Your task to perform on an android device: Go to notification settings Image 0: 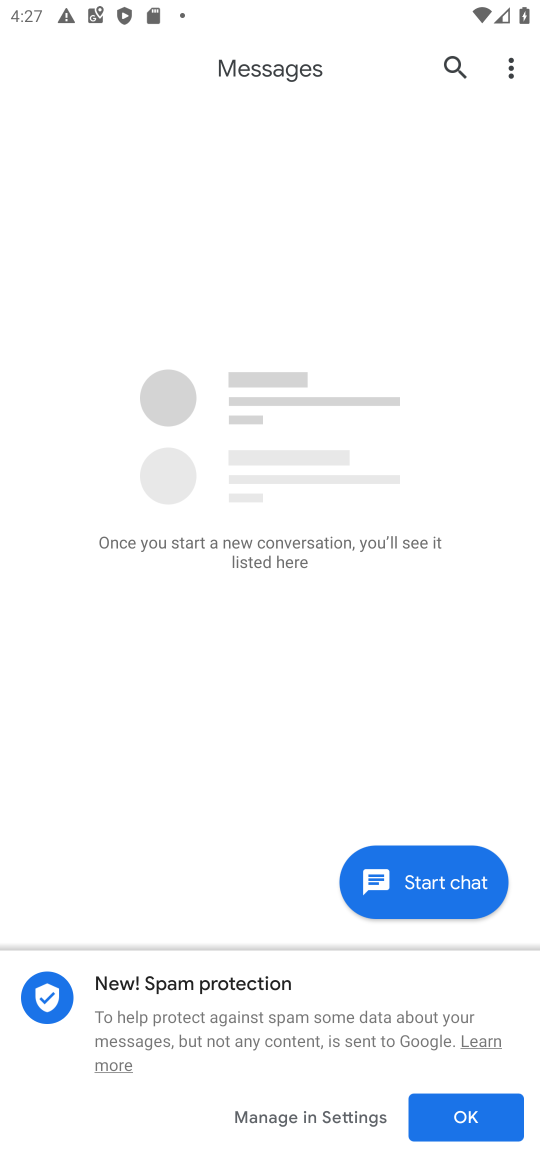
Step 0: press home button
Your task to perform on an android device: Go to notification settings Image 1: 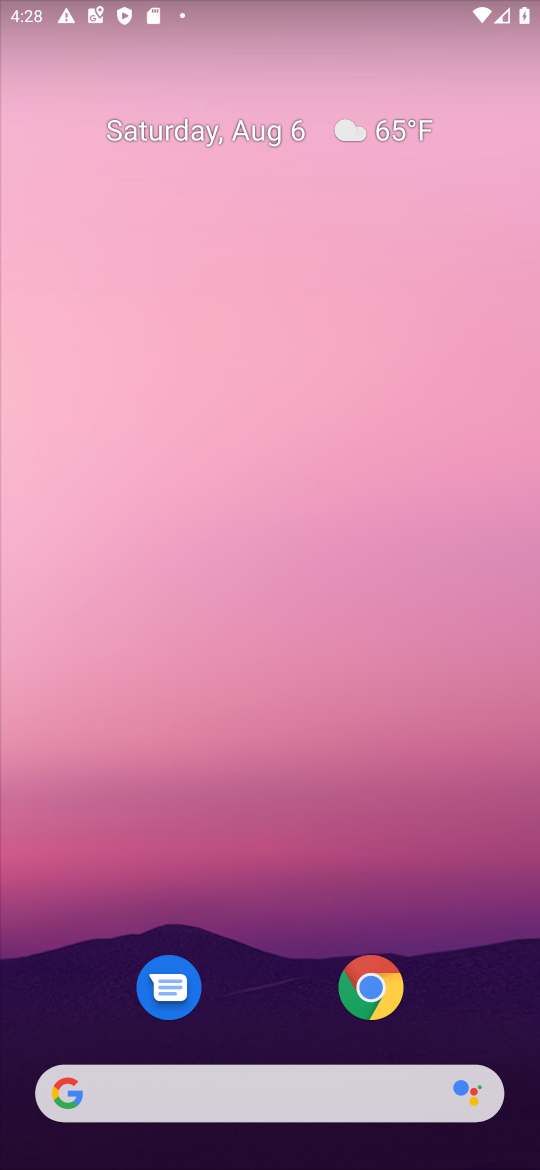
Step 1: drag from (263, 1006) to (281, 2)
Your task to perform on an android device: Go to notification settings Image 2: 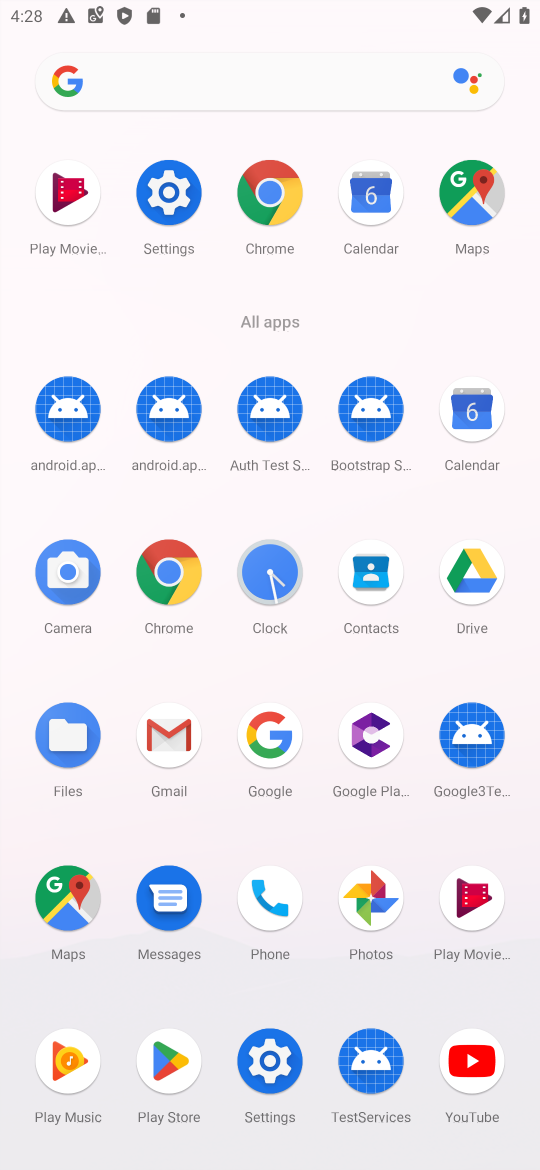
Step 2: click (260, 1058)
Your task to perform on an android device: Go to notification settings Image 3: 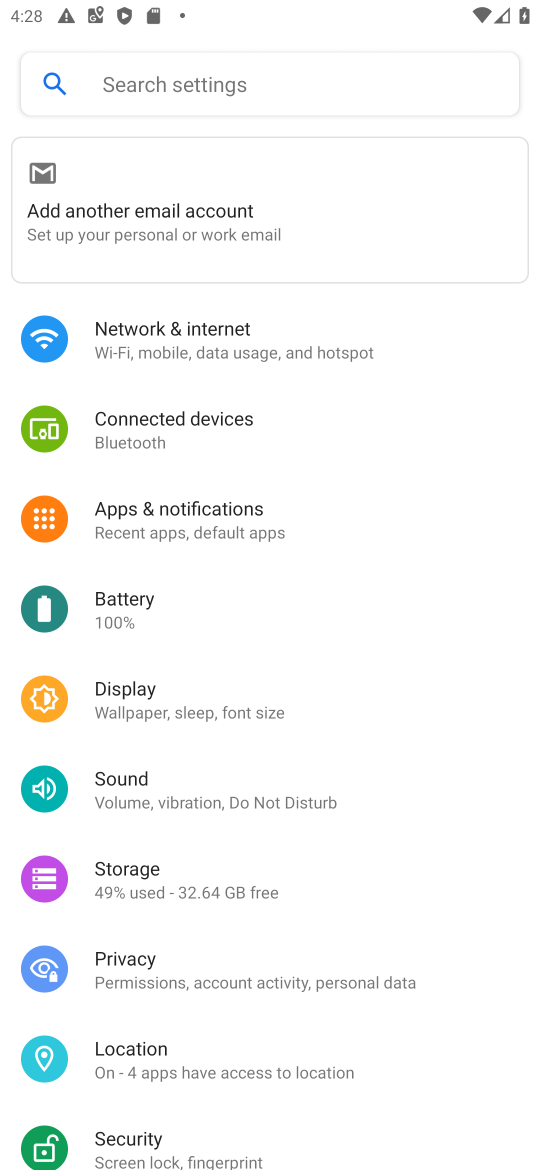
Step 3: click (255, 534)
Your task to perform on an android device: Go to notification settings Image 4: 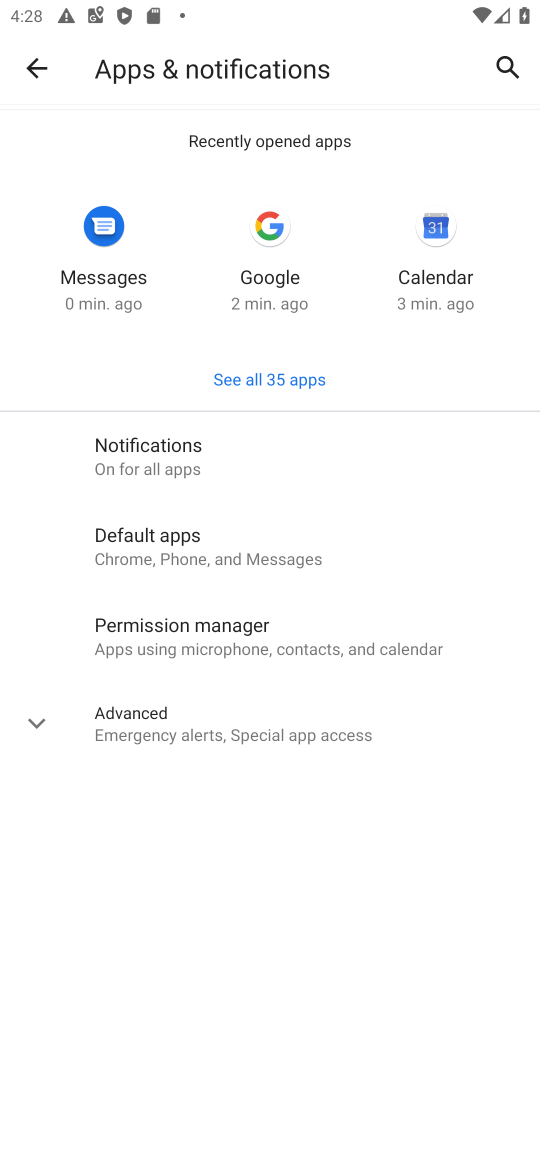
Step 4: click (174, 458)
Your task to perform on an android device: Go to notification settings Image 5: 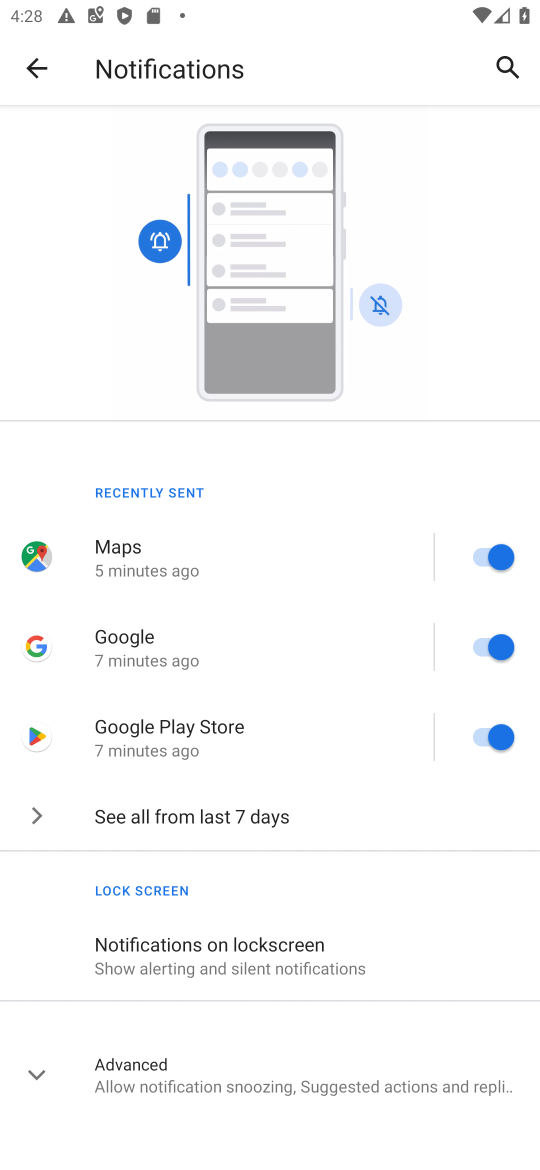
Step 5: task complete